Your task to perform on an android device: Is it going to rain this weekend? Image 0: 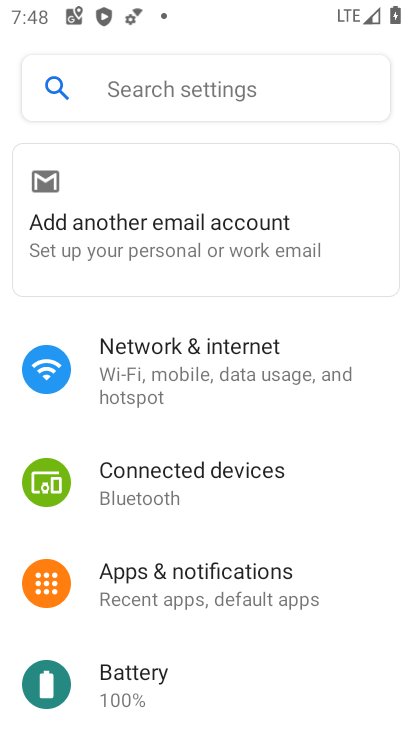
Step 0: press home button
Your task to perform on an android device: Is it going to rain this weekend? Image 1: 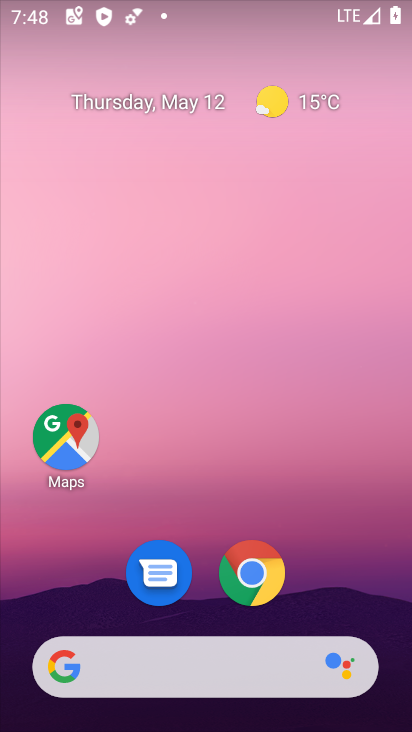
Step 1: click (312, 101)
Your task to perform on an android device: Is it going to rain this weekend? Image 2: 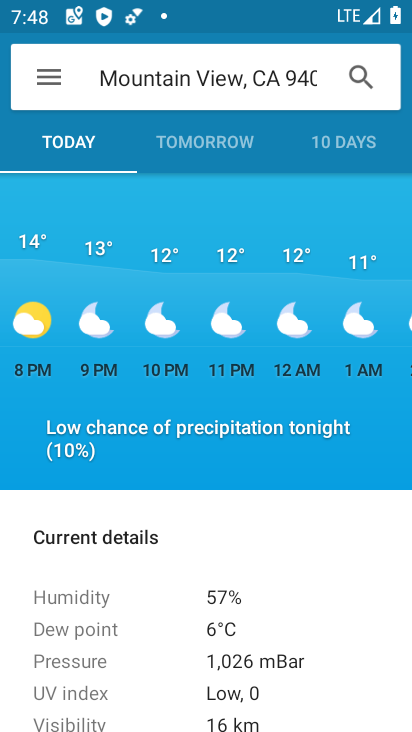
Step 2: click (339, 135)
Your task to perform on an android device: Is it going to rain this weekend? Image 3: 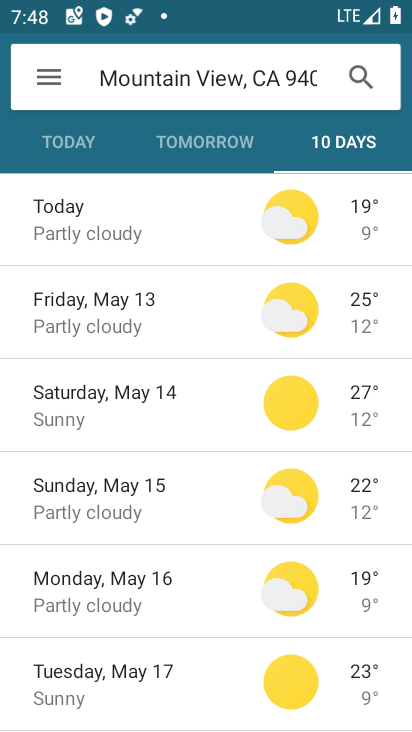
Step 3: click (140, 397)
Your task to perform on an android device: Is it going to rain this weekend? Image 4: 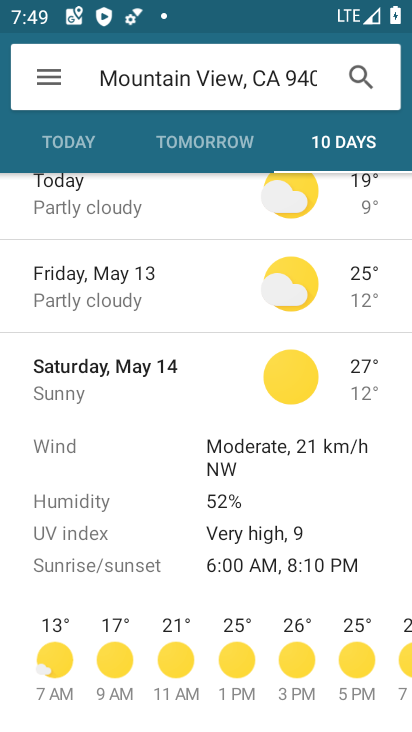
Step 4: drag from (168, 504) to (179, 244)
Your task to perform on an android device: Is it going to rain this weekend? Image 5: 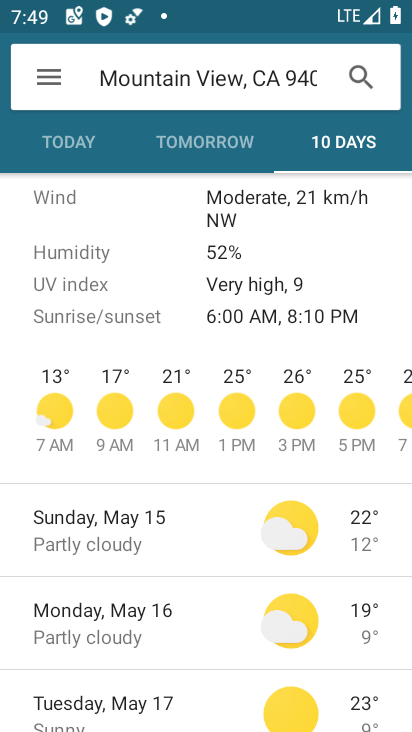
Step 5: click (136, 525)
Your task to perform on an android device: Is it going to rain this weekend? Image 6: 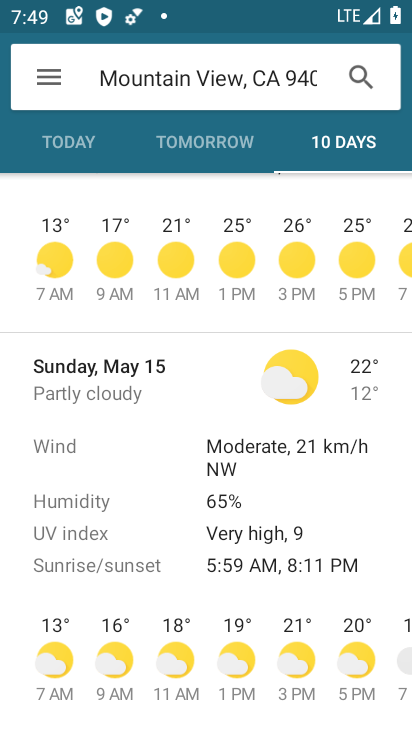
Step 6: task complete